Your task to perform on an android device: open chrome privacy settings Image 0: 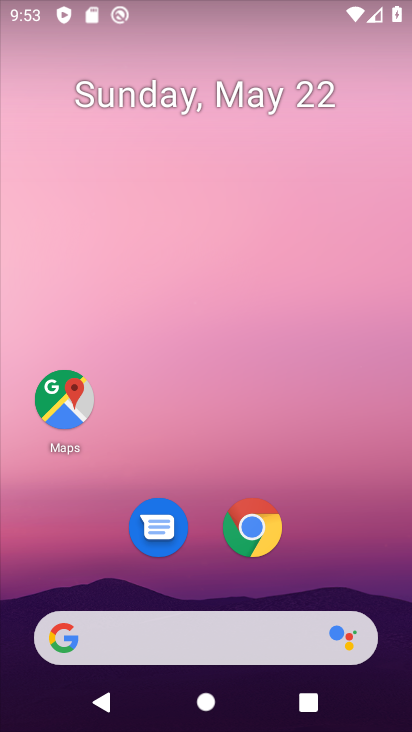
Step 0: click (253, 528)
Your task to perform on an android device: open chrome privacy settings Image 1: 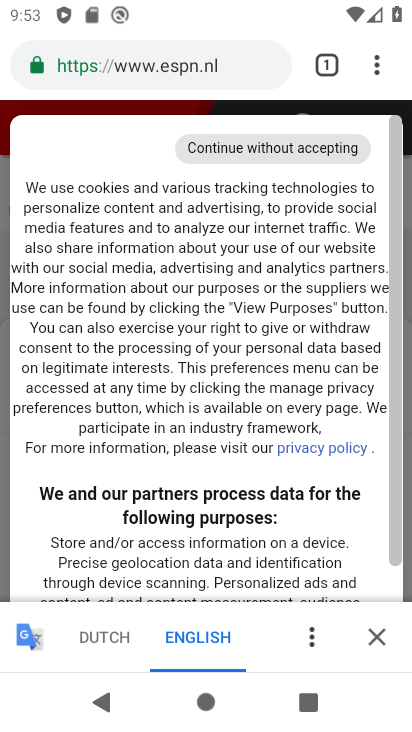
Step 1: click (381, 59)
Your task to perform on an android device: open chrome privacy settings Image 2: 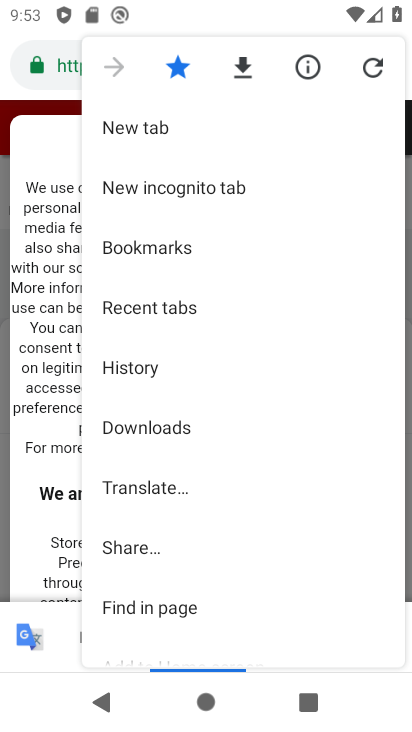
Step 2: drag from (189, 540) to (248, 291)
Your task to perform on an android device: open chrome privacy settings Image 3: 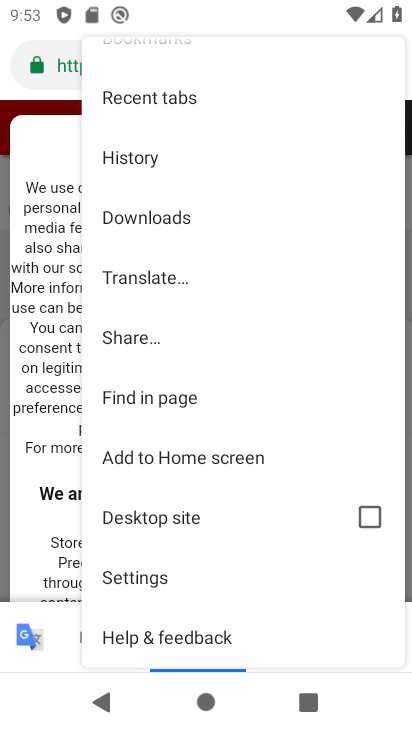
Step 3: click (240, 565)
Your task to perform on an android device: open chrome privacy settings Image 4: 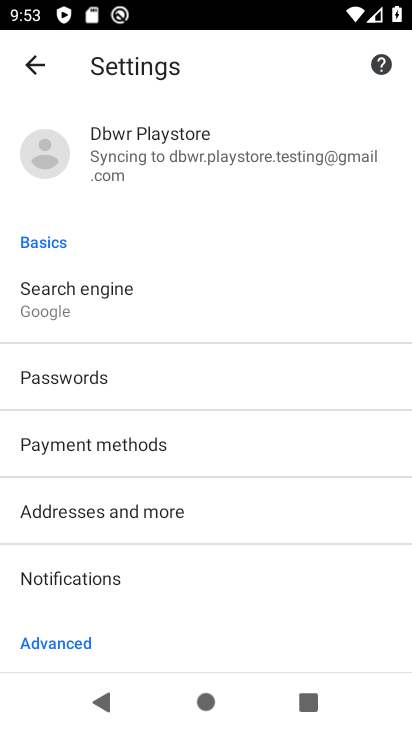
Step 4: drag from (193, 592) to (213, 304)
Your task to perform on an android device: open chrome privacy settings Image 5: 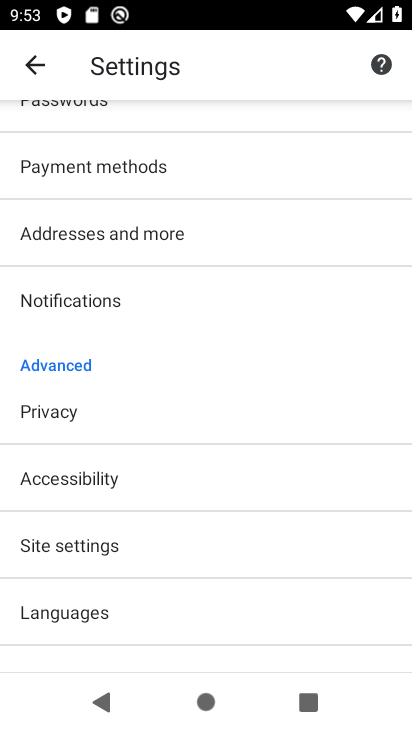
Step 5: click (197, 407)
Your task to perform on an android device: open chrome privacy settings Image 6: 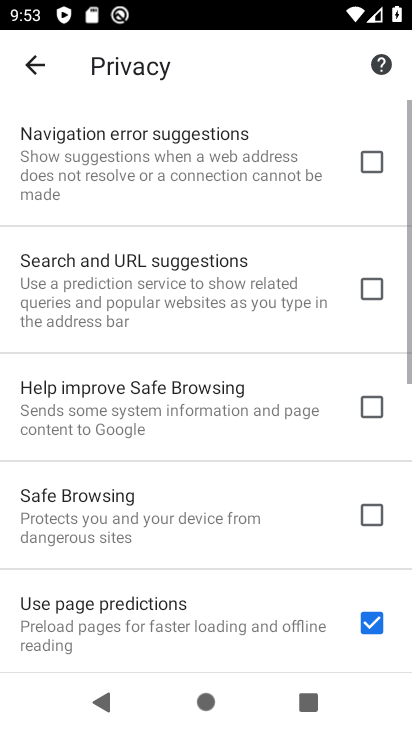
Step 6: task complete